Your task to perform on an android device: show emergency info Image 0: 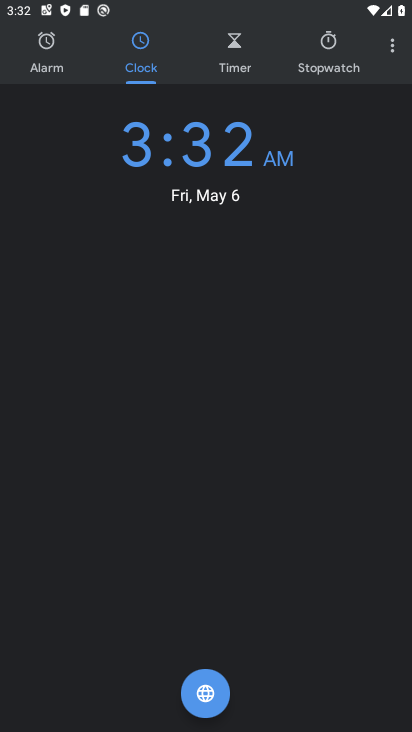
Step 0: press home button
Your task to perform on an android device: show emergency info Image 1: 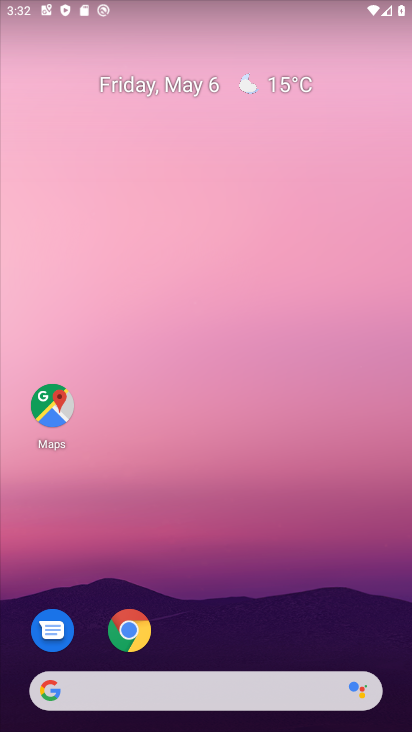
Step 1: drag from (180, 648) to (207, 208)
Your task to perform on an android device: show emergency info Image 2: 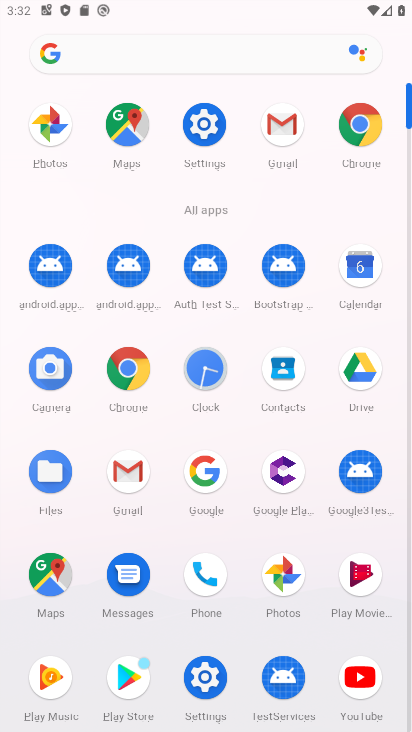
Step 2: click (202, 665)
Your task to perform on an android device: show emergency info Image 3: 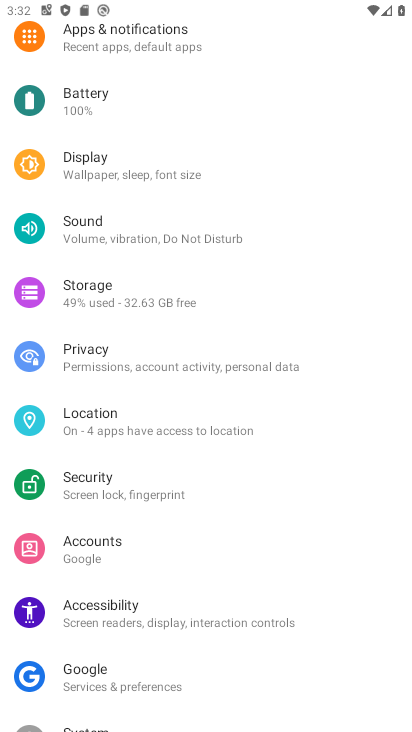
Step 3: drag from (207, 686) to (238, 266)
Your task to perform on an android device: show emergency info Image 4: 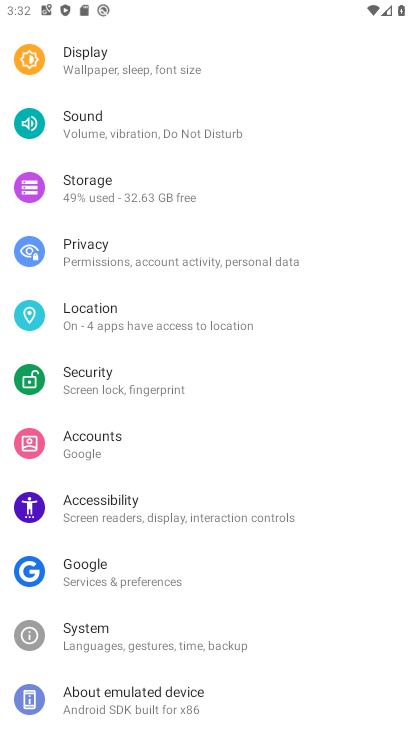
Step 4: drag from (131, 581) to (139, 91)
Your task to perform on an android device: show emergency info Image 5: 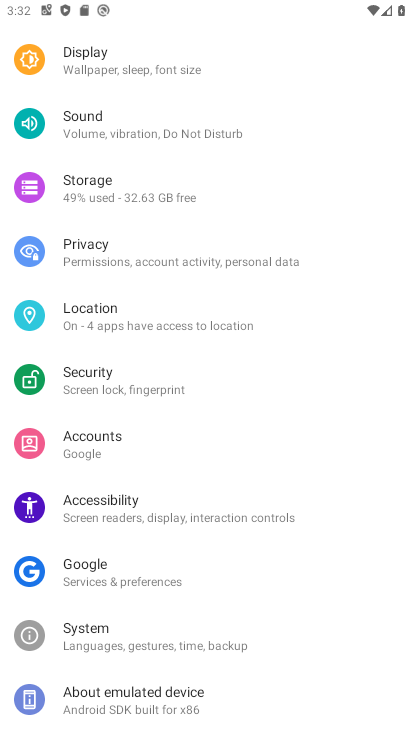
Step 5: click (92, 691)
Your task to perform on an android device: show emergency info Image 6: 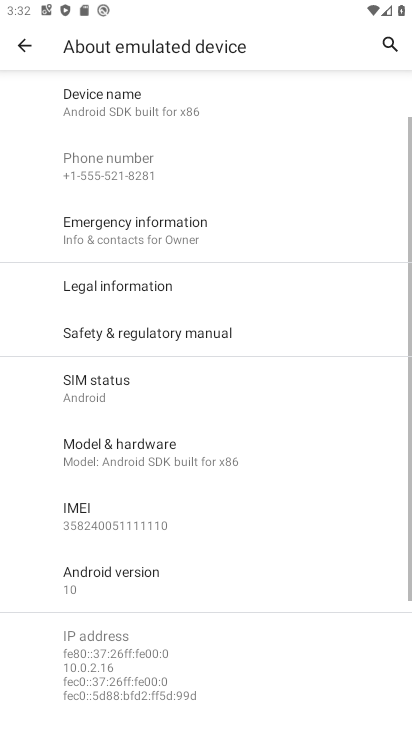
Step 6: click (228, 254)
Your task to perform on an android device: show emergency info Image 7: 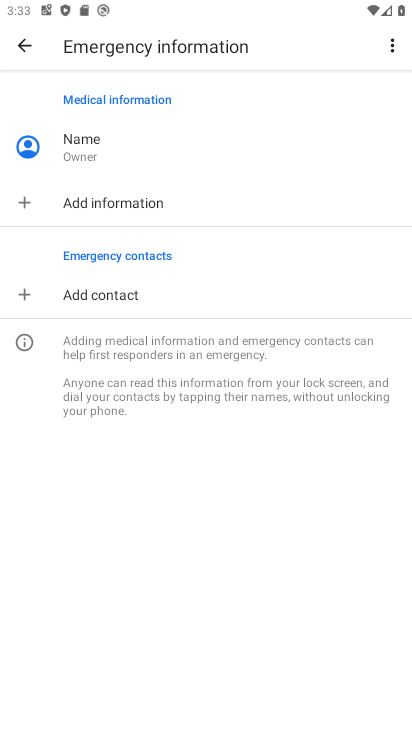
Step 7: task complete